Your task to perform on an android device: Check the weather Image 0: 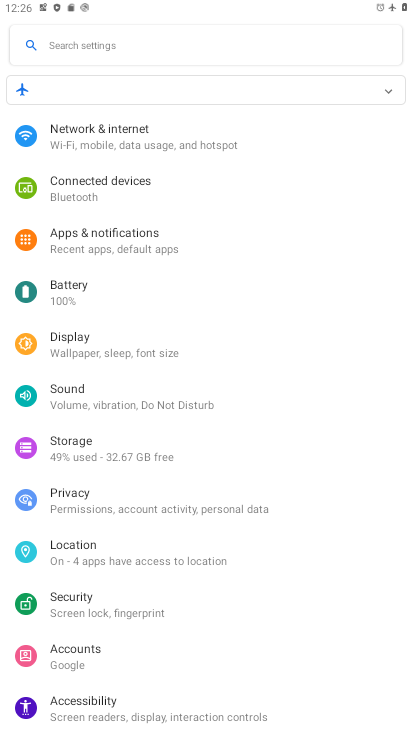
Step 0: press home button
Your task to perform on an android device: Check the weather Image 1: 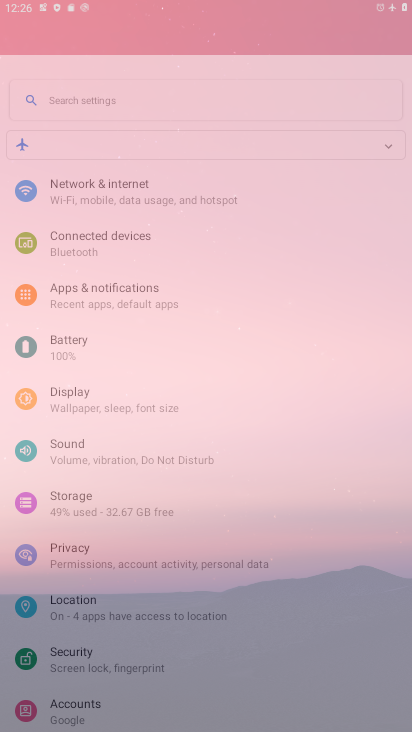
Step 1: drag from (121, 637) to (140, 29)
Your task to perform on an android device: Check the weather Image 2: 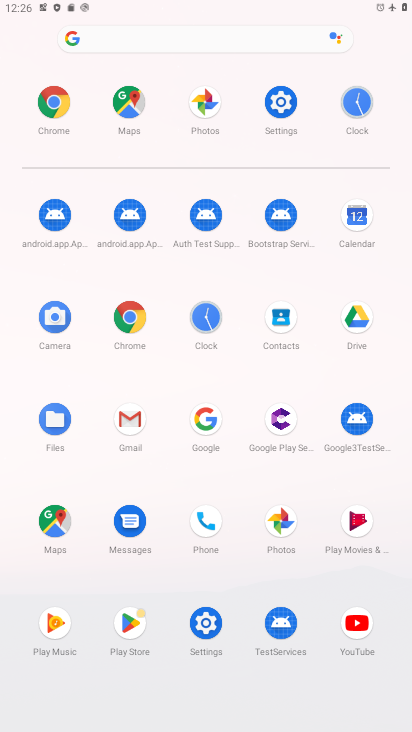
Step 2: click (165, 43)
Your task to perform on an android device: Check the weather Image 3: 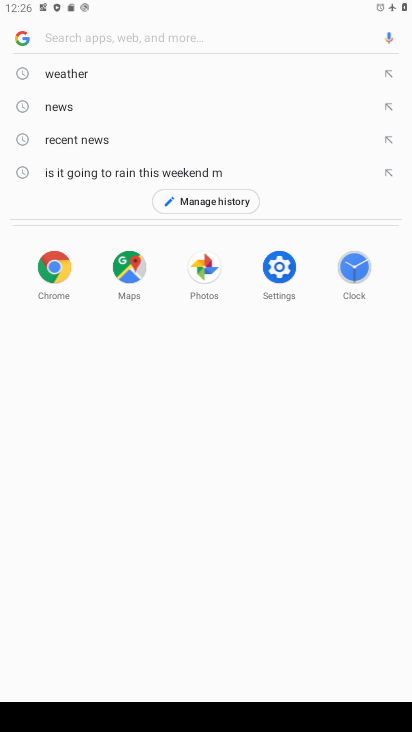
Step 3: click (87, 81)
Your task to perform on an android device: Check the weather Image 4: 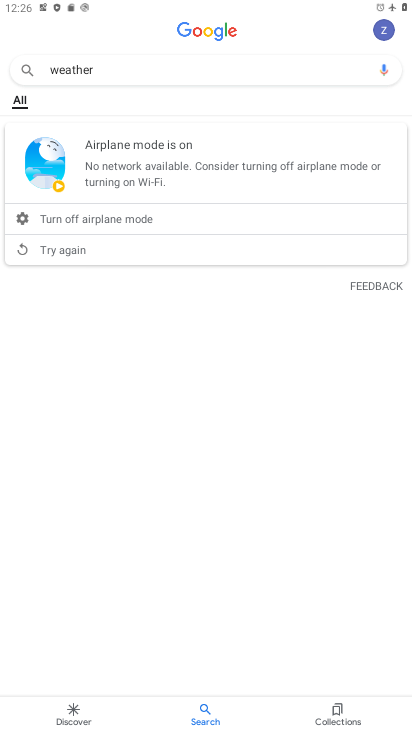
Step 4: drag from (181, 469) to (217, 222)
Your task to perform on an android device: Check the weather Image 5: 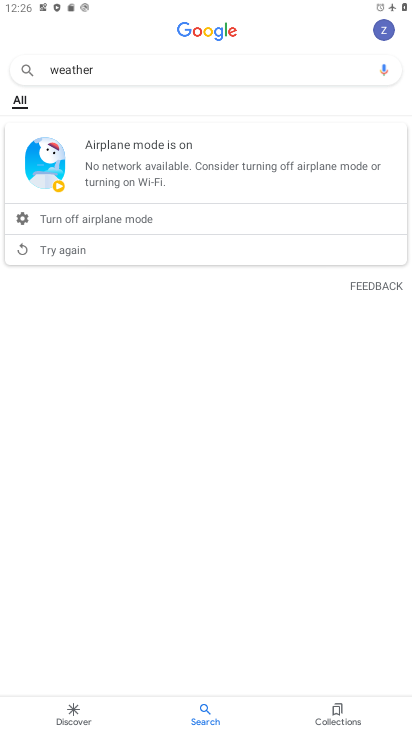
Step 5: drag from (206, 148) to (205, 480)
Your task to perform on an android device: Check the weather Image 6: 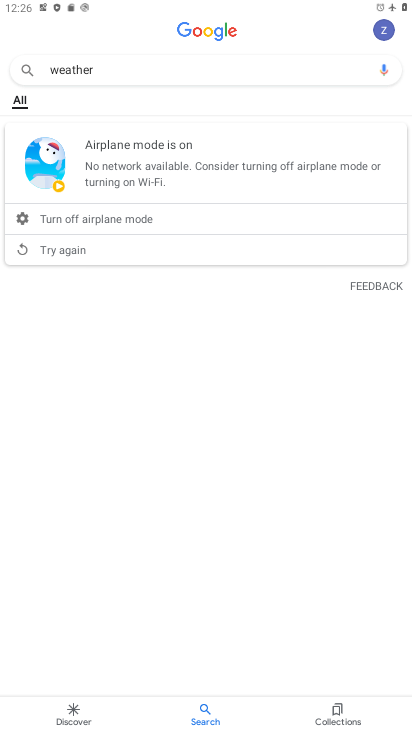
Step 6: click (189, 434)
Your task to perform on an android device: Check the weather Image 7: 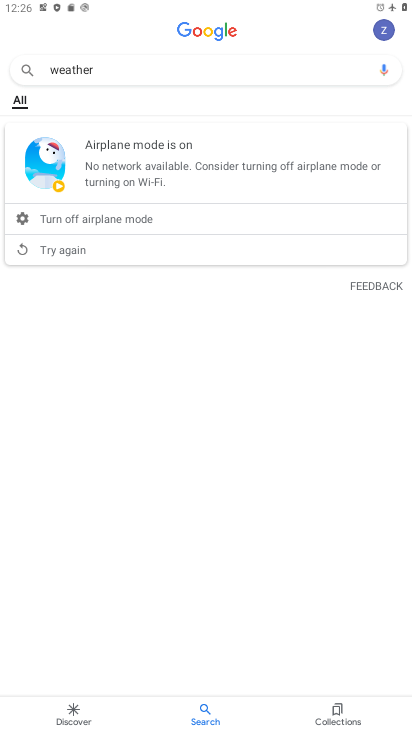
Step 7: task complete